Your task to perform on an android device: Open the stopwatch Image 0: 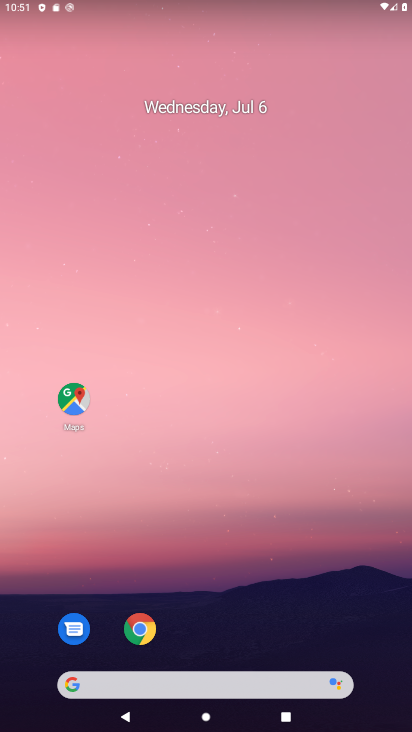
Step 0: drag from (242, 602) to (207, 120)
Your task to perform on an android device: Open the stopwatch Image 1: 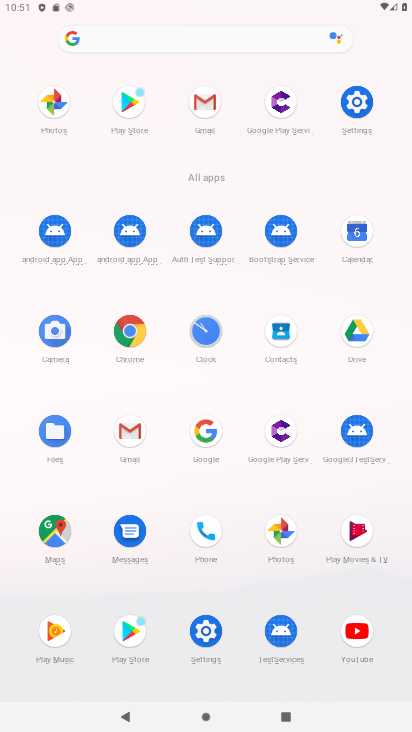
Step 1: click (206, 338)
Your task to perform on an android device: Open the stopwatch Image 2: 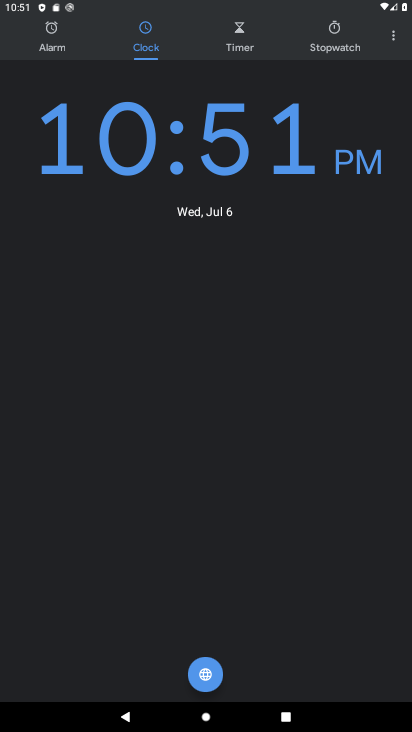
Step 2: click (330, 43)
Your task to perform on an android device: Open the stopwatch Image 3: 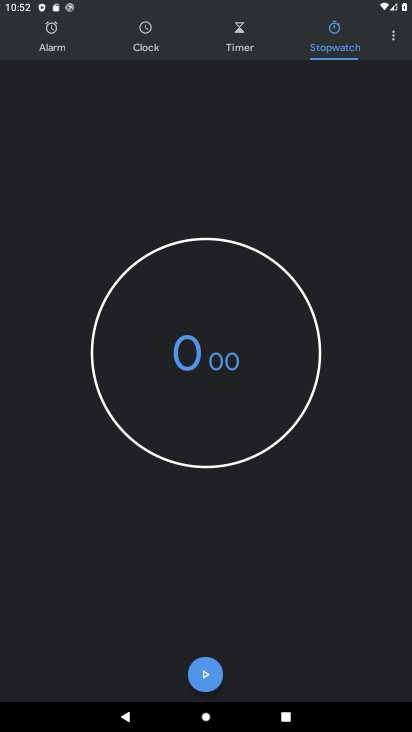
Step 3: click (196, 672)
Your task to perform on an android device: Open the stopwatch Image 4: 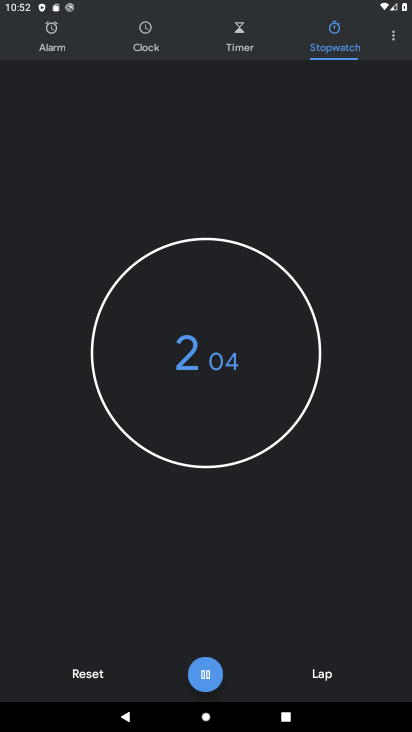
Step 4: task complete